Your task to perform on an android device: Open my contact list Image 0: 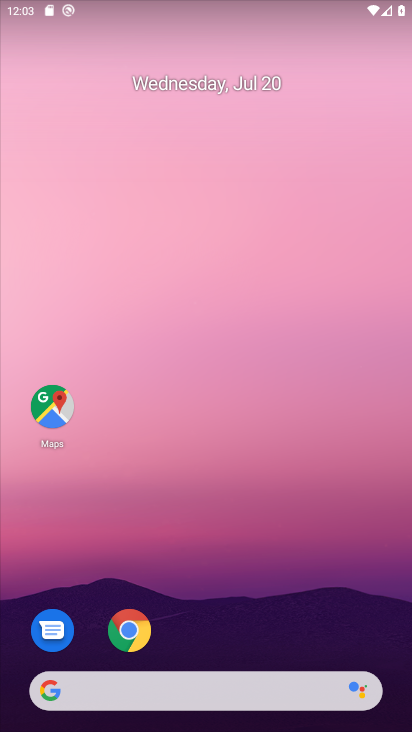
Step 0: drag from (193, 414) to (234, 3)
Your task to perform on an android device: Open my contact list Image 1: 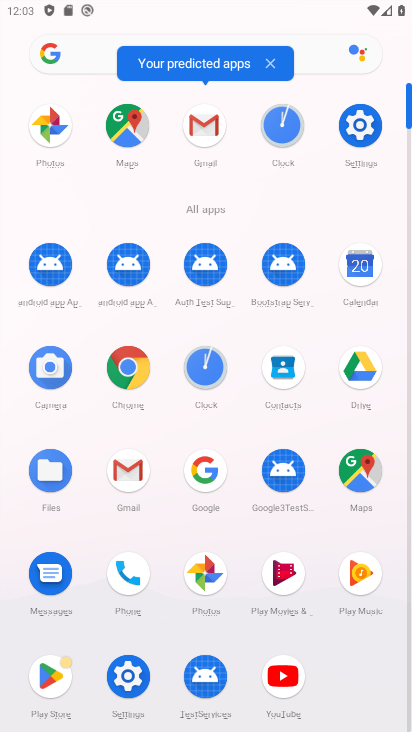
Step 1: click (289, 368)
Your task to perform on an android device: Open my contact list Image 2: 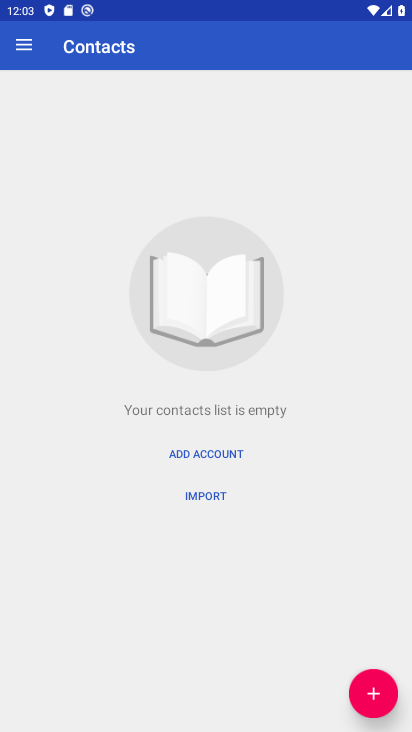
Step 2: task complete